Your task to perform on an android device: Turn off the flashlight Image 0: 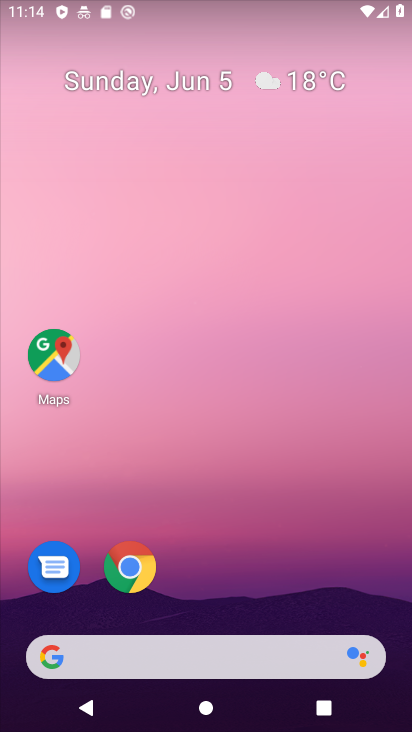
Step 0: drag from (227, 602) to (239, 32)
Your task to perform on an android device: Turn off the flashlight Image 1: 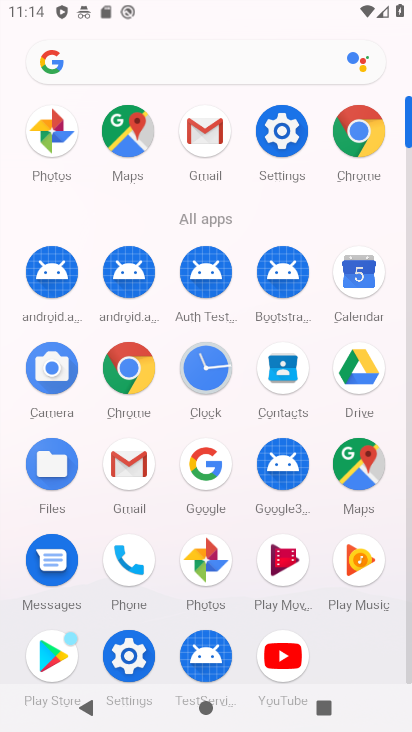
Step 1: click (273, 120)
Your task to perform on an android device: Turn off the flashlight Image 2: 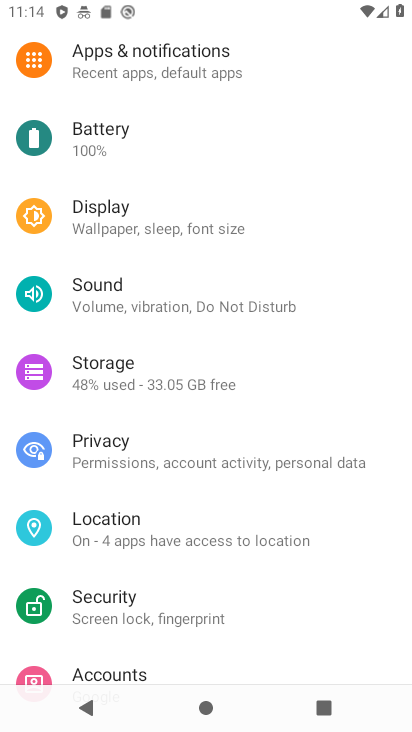
Step 2: drag from (223, 211) to (285, 658)
Your task to perform on an android device: Turn off the flashlight Image 3: 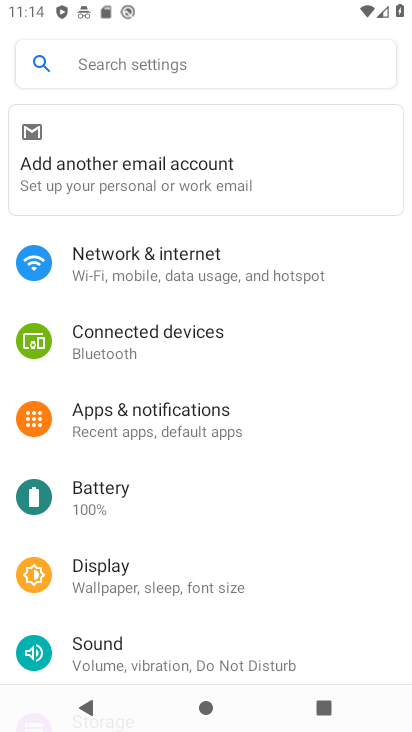
Step 3: click (227, 55)
Your task to perform on an android device: Turn off the flashlight Image 4: 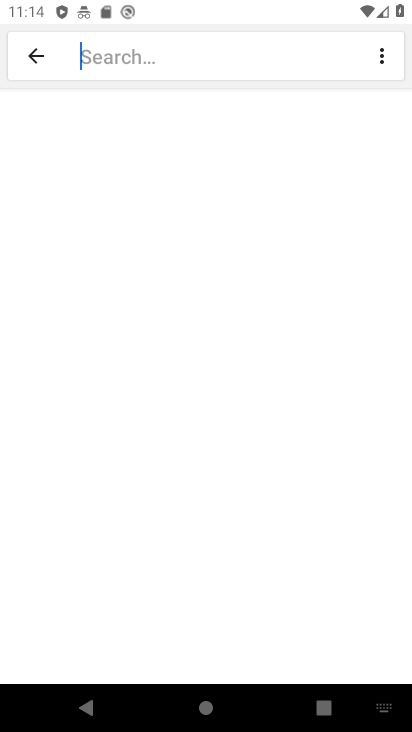
Step 4: type "Flashlight"
Your task to perform on an android device: Turn off the flashlight Image 5: 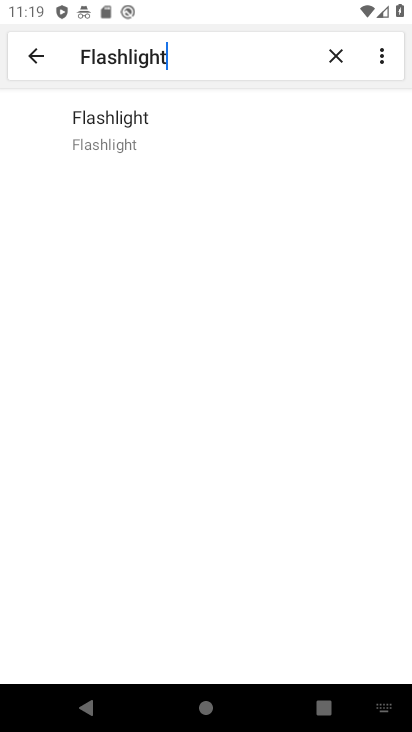
Step 5: task complete